Your task to perform on an android device: turn off location Image 0: 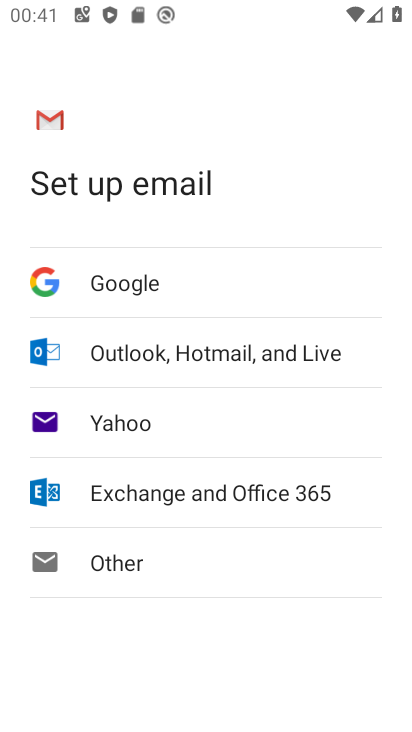
Step 0: press home button
Your task to perform on an android device: turn off location Image 1: 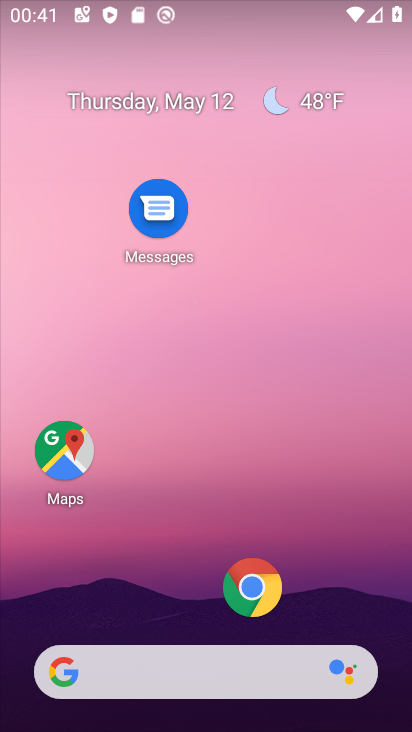
Step 1: drag from (205, 655) to (117, 3)
Your task to perform on an android device: turn off location Image 2: 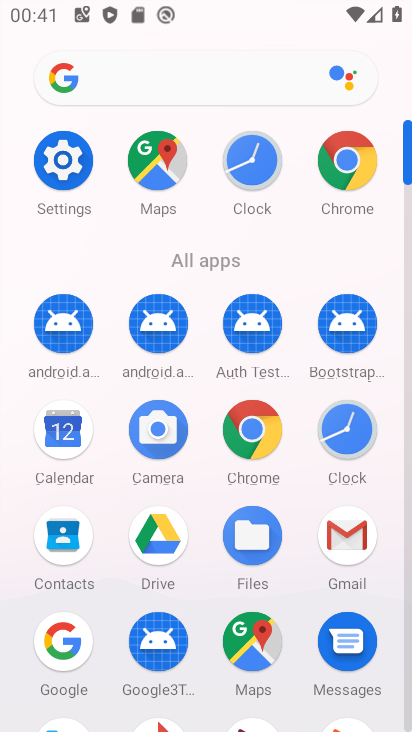
Step 2: click (71, 170)
Your task to perform on an android device: turn off location Image 3: 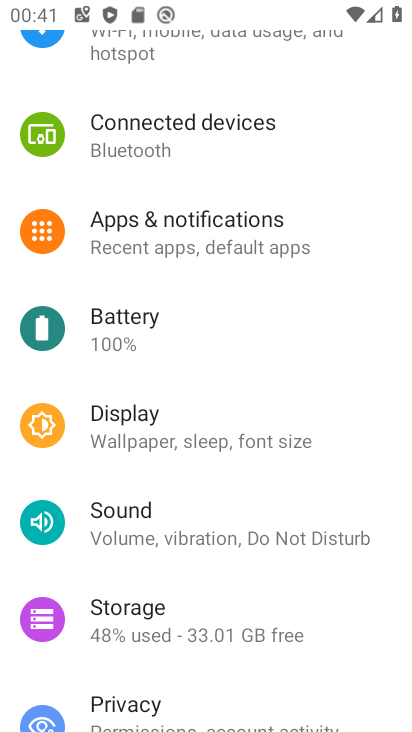
Step 3: drag from (111, 298) to (72, 63)
Your task to perform on an android device: turn off location Image 4: 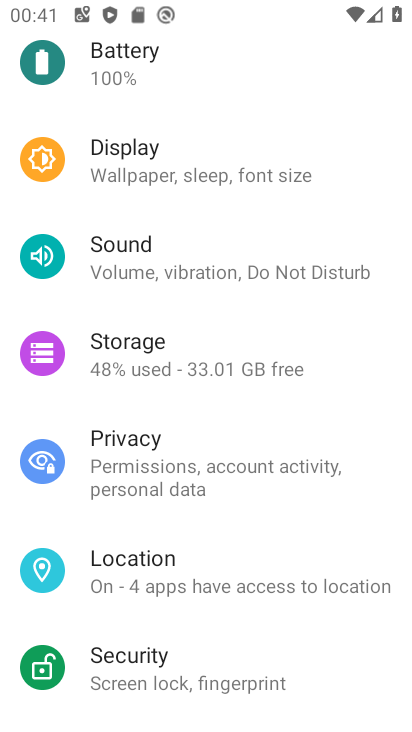
Step 4: click (127, 551)
Your task to perform on an android device: turn off location Image 5: 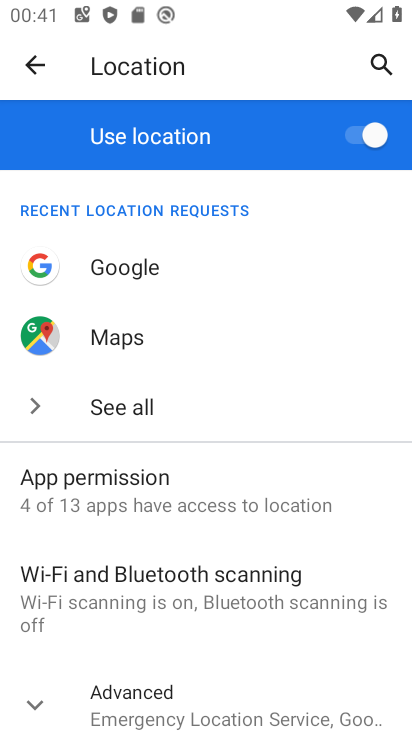
Step 5: click (336, 144)
Your task to perform on an android device: turn off location Image 6: 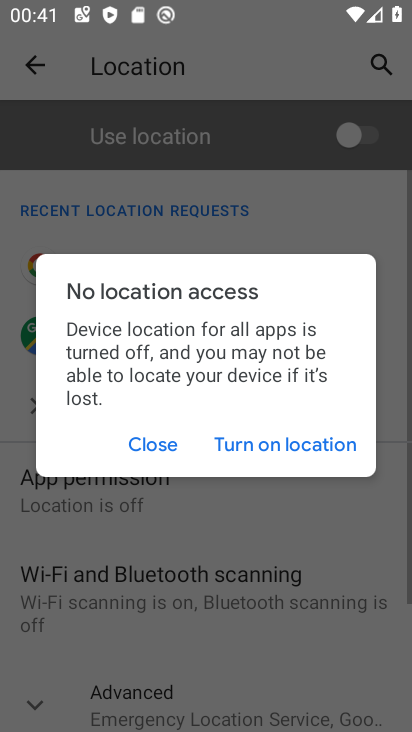
Step 6: task complete